Your task to perform on an android device: What's the weather going to be this weekend? Image 0: 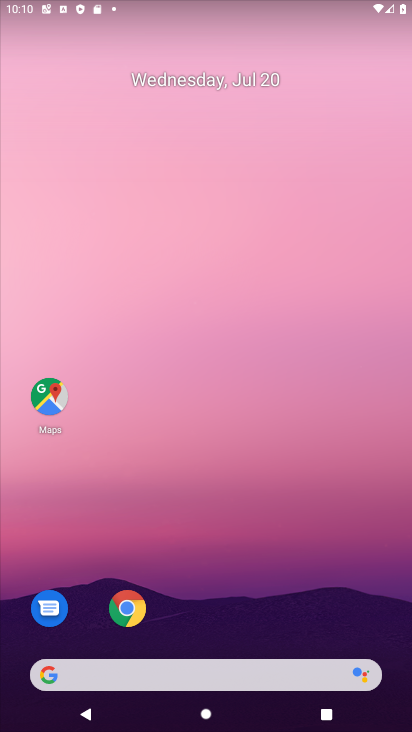
Step 0: drag from (210, 574) to (190, 34)
Your task to perform on an android device: What's the weather going to be this weekend? Image 1: 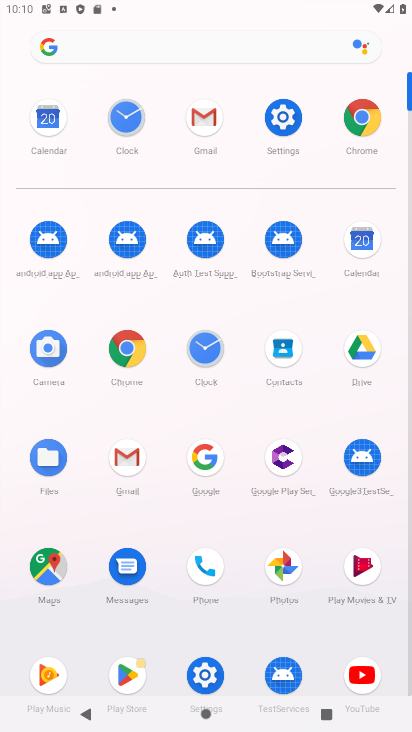
Step 1: click (134, 357)
Your task to perform on an android device: What's the weather going to be this weekend? Image 2: 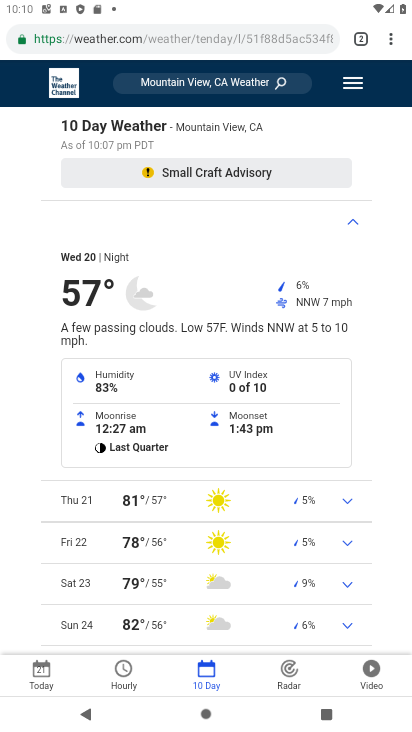
Step 2: task complete